Your task to perform on an android device: open a new tab in the chrome app Image 0: 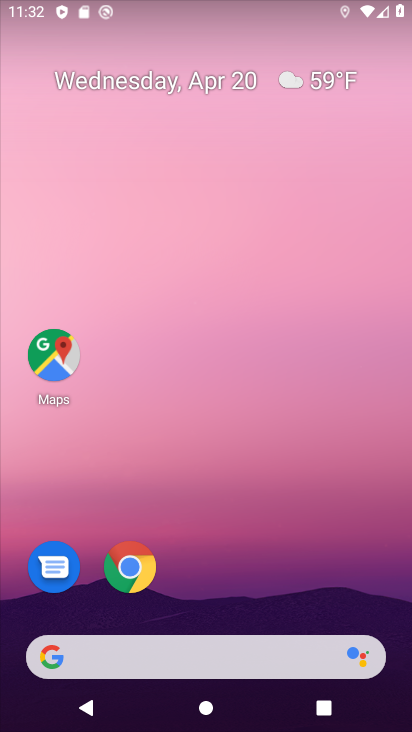
Step 0: click (127, 558)
Your task to perform on an android device: open a new tab in the chrome app Image 1: 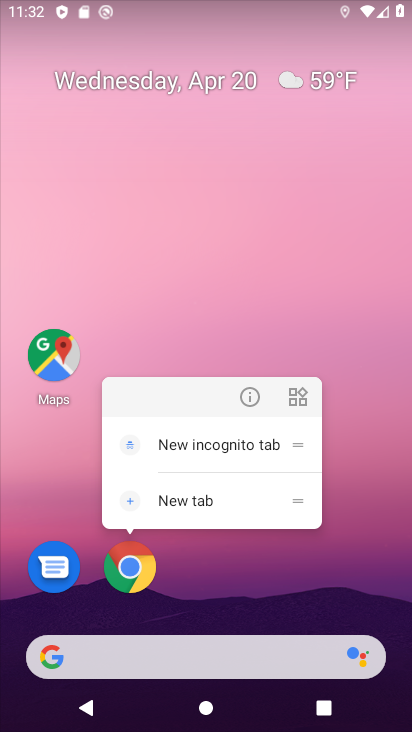
Step 1: click (126, 554)
Your task to perform on an android device: open a new tab in the chrome app Image 2: 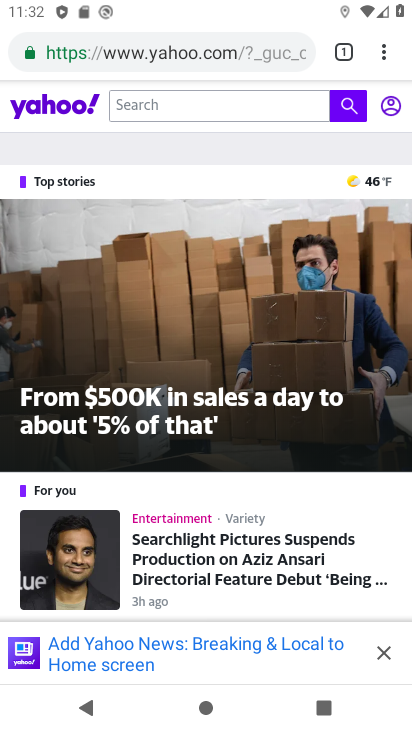
Step 2: click (382, 50)
Your task to perform on an android device: open a new tab in the chrome app Image 3: 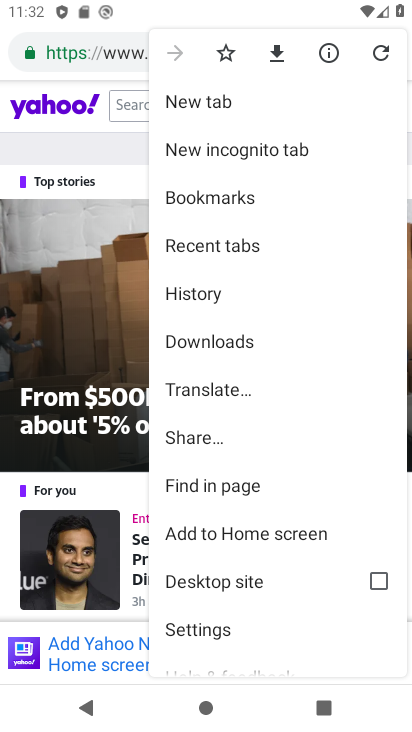
Step 3: click (207, 110)
Your task to perform on an android device: open a new tab in the chrome app Image 4: 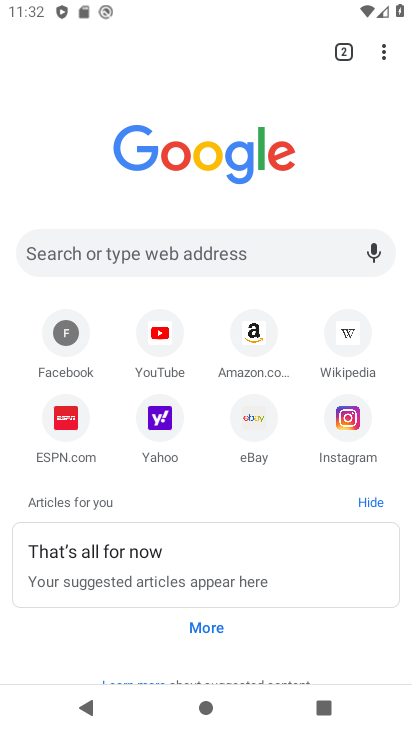
Step 4: task complete